Your task to perform on an android device: Open settings Image 0: 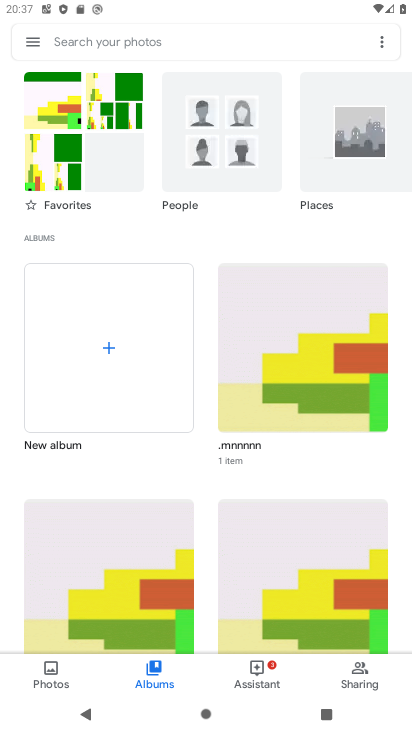
Step 0: click (48, 393)
Your task to perform on an android device: Open settings Image 1: 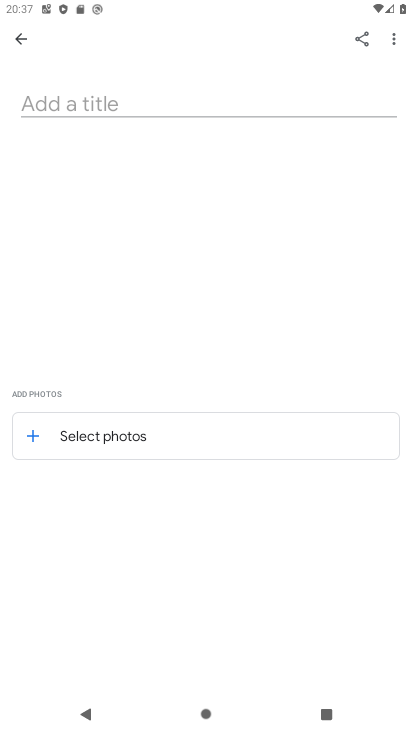
Step 1: press home button
Your task to perform on an android device: Open settings Image 2: 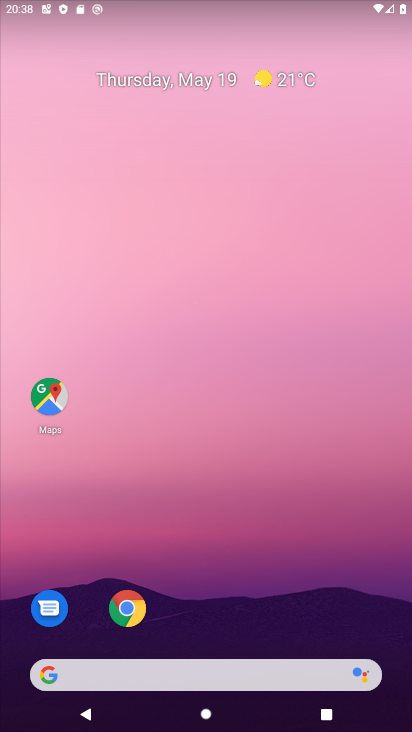
Step 2: drag from (313, 587) to (226, 170)
Your task to perform on an android device: Open settings Image 3: 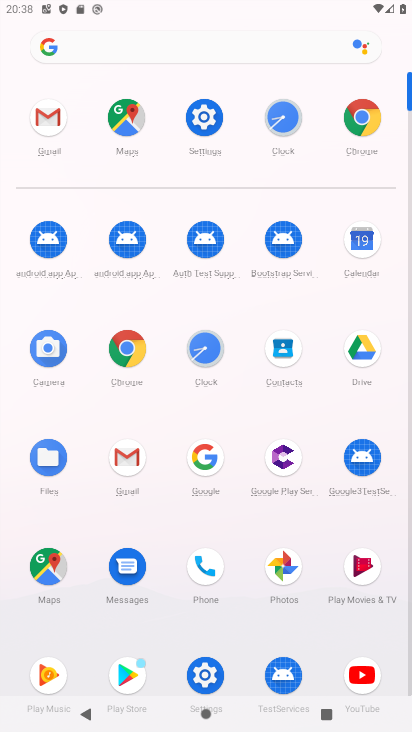
Step 3: click (197, 117)
Your task to perform on an android device: Open settings Image 4: 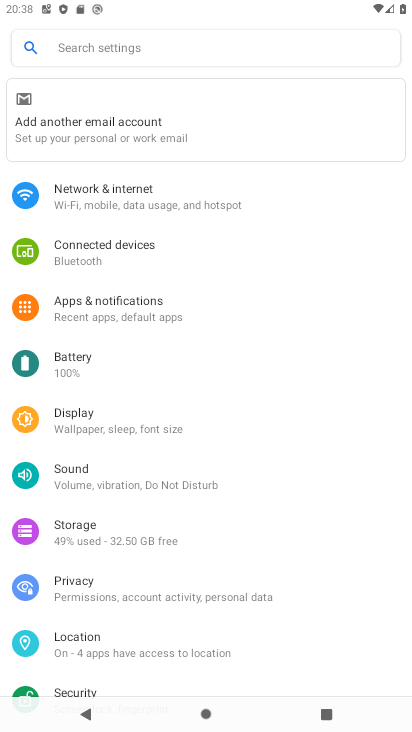
Step 4: task complete